Your task to perform on an android device: turn off notifications in google photos Image 0: 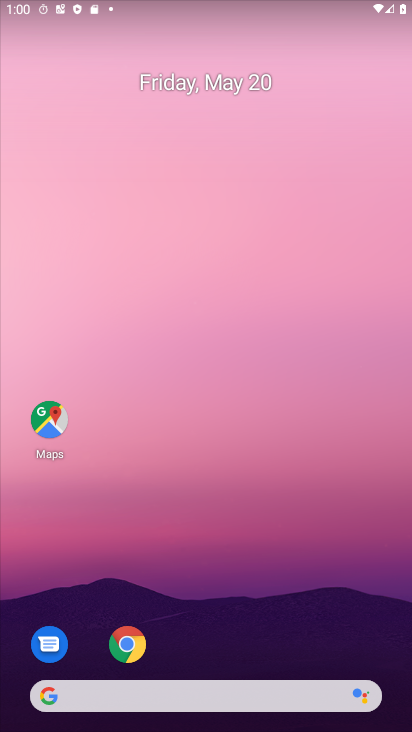
Step 0: drag from (297, 534) to (246, 28)
Your task to perform on an android device: turn off notifications in google photos Image 1: 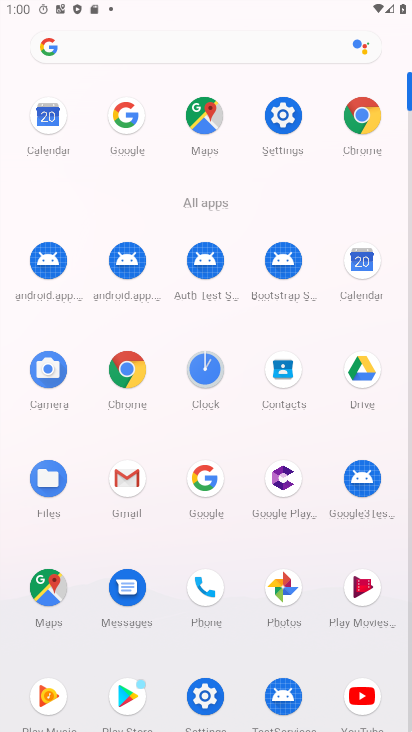
Step 1: click (287, 581)
Your task to perform on an android device: turn off notifications in google photos Image 2: 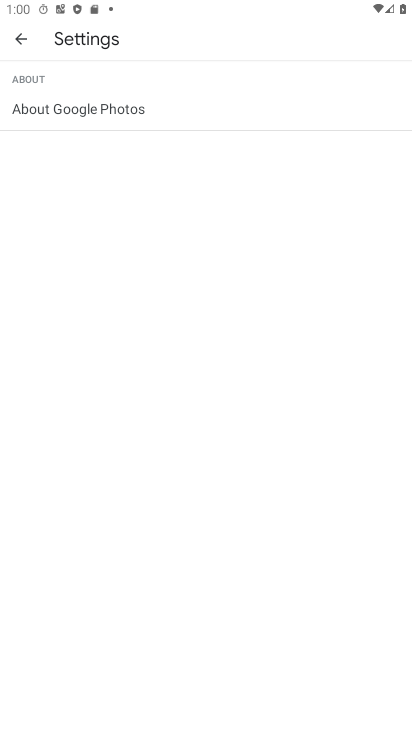
Step 2: click (27, 45)
Your task to perform on an android device: turn off notifications in google photos Image 3: 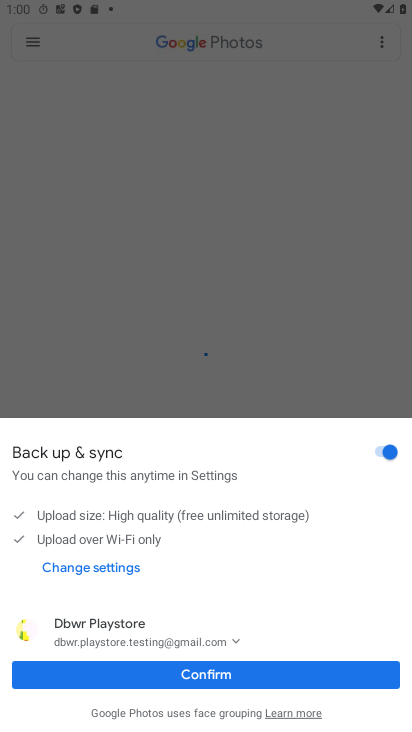
Step 3: click (186, 663)
Your task to perform on an android device: turn off notifications in google photos Image 4: 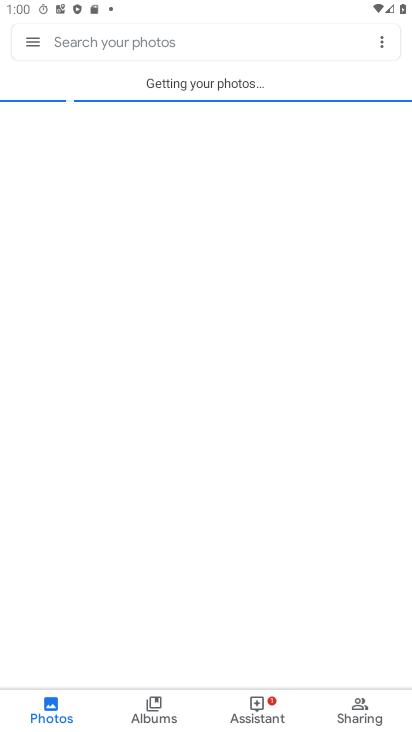
Step 4: click (39, 43)
Your task to perform on an android device: turn off notifications in google photos Image 5: 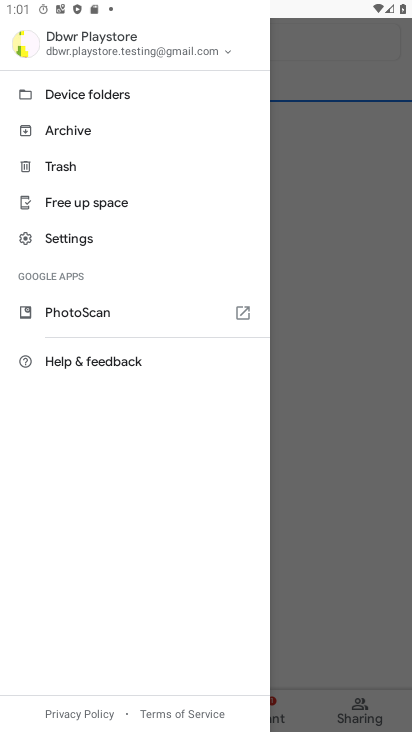
Step 5: click (80, 230)
Your task to perform on an android device: turn off notifications in google photos Image 6: 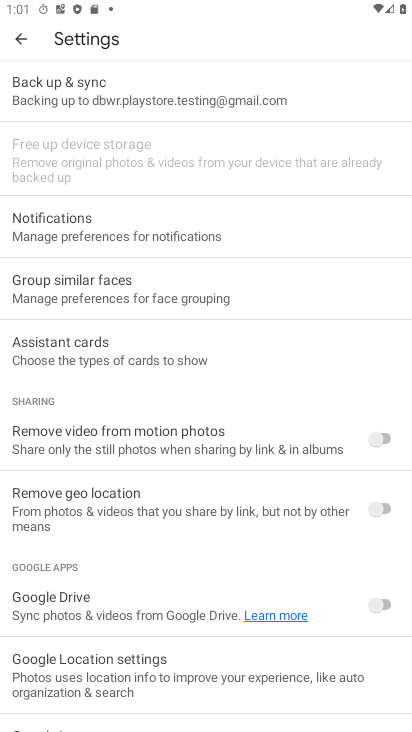
Step 6: click (110, 239)
Your task to perform on an android device: turn off notifications in google photos Image 7: 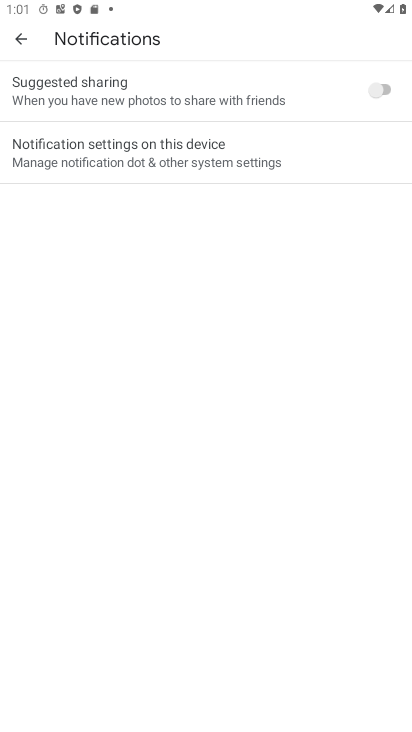
Step 7: click (88, 158)
Your task to perform on an android device: turn off notifications in google photos Image 8: 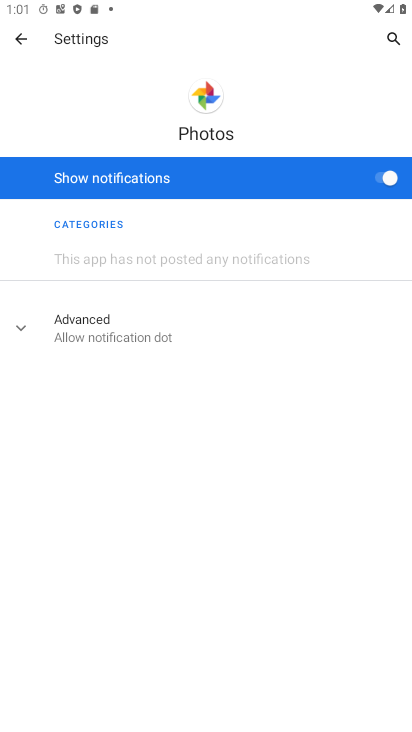
Step 8: click (383, 182)
Your task to perform on an android device: turn off notifications in google photos Image 9: 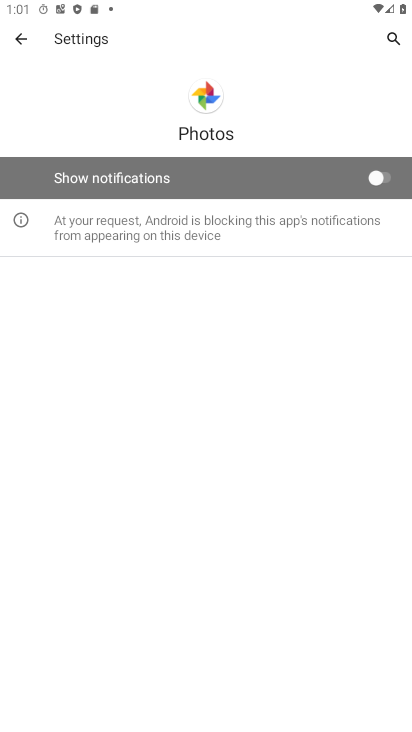
Step 9: task complete